Your task to perform on an android device: change the upload size in google photos Image 0: 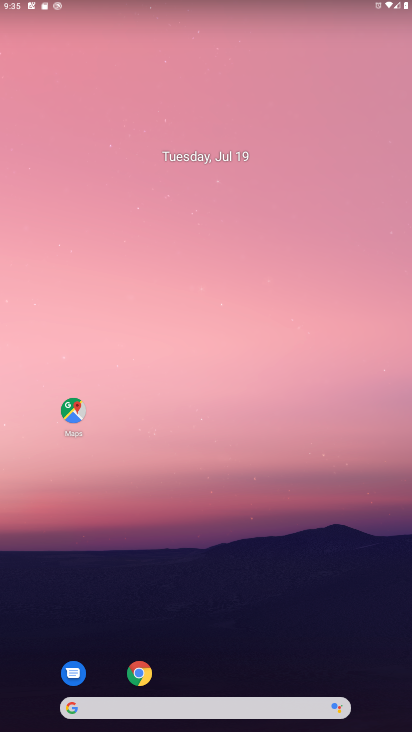
Step 0: drag from (379, 670) to (354, 188)
Your task to perform on an android device: change the upload size in google photos Image 1: 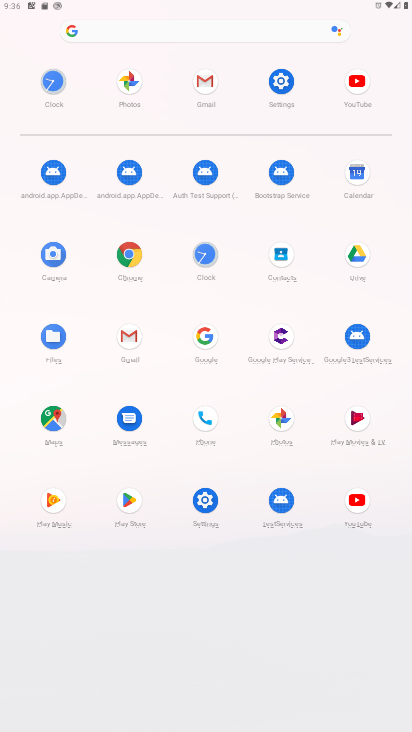
Step 1: click (280, 419)
Your task to perform on an android device: change the upload size in google photos Image 2: 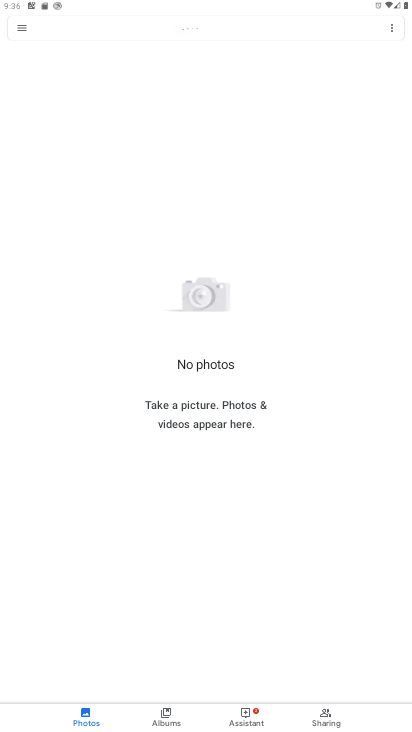
Step 2: click (26, 32)
Your task to perform on an android device: change the upload size in google photos Image 3: 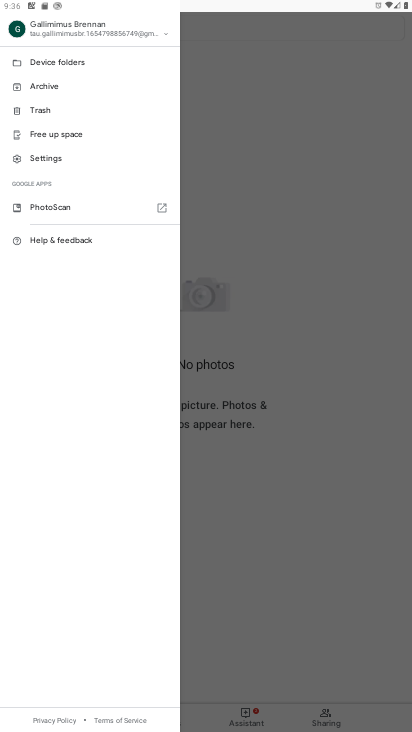
Step 3: click (52, 163)
Your task to perform on an android device: change the upload size in google photos Image 4: 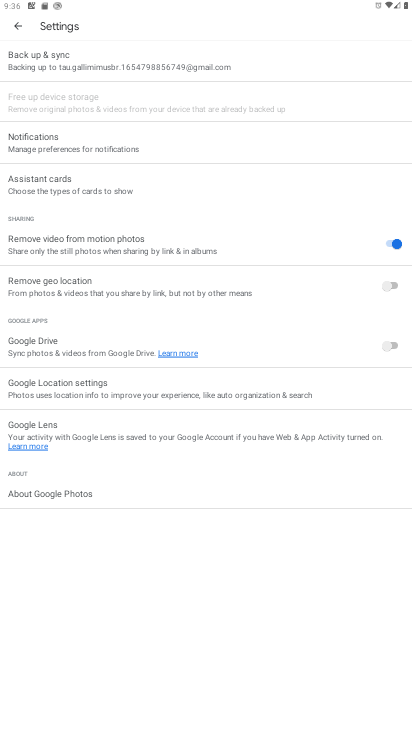
Step 4: click (57, 60)
Your task to perform on an android device: change the upload size in google photos Image 5: 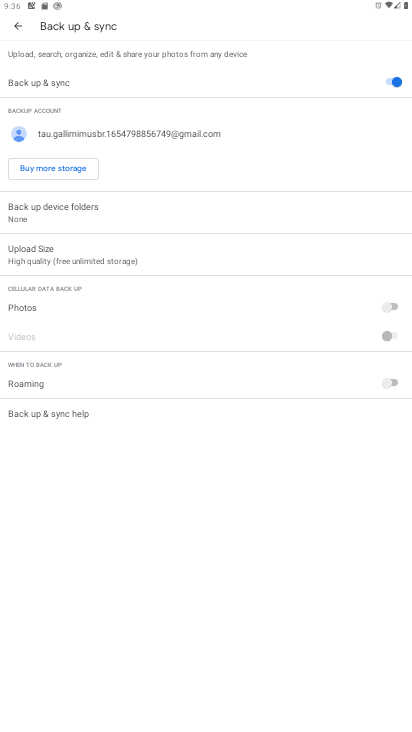
Step 5: click (41, 259)
Your task to perform on an android device: change the upload size in google photos Image 6: 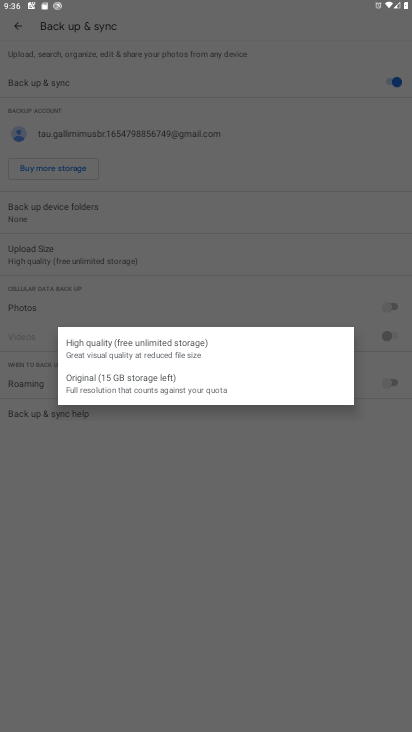
Step 6: click (118, 382)
Your task to perform on an android device: change the upload size in google photos Image 7: 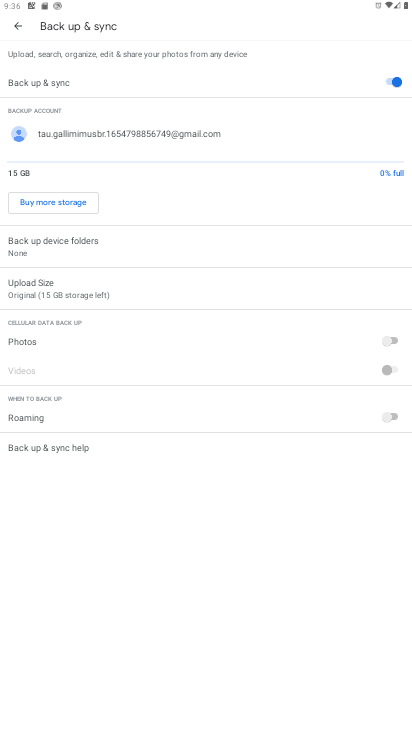
Step 7: task complete